Your task to perform on an android device: Go to location settings Image 0: 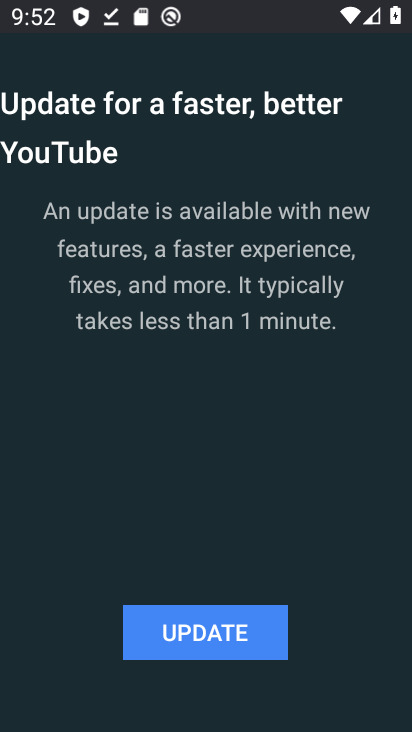
Step 0: press back button
Your task to perform on an android device: Go to location settings Image 1: 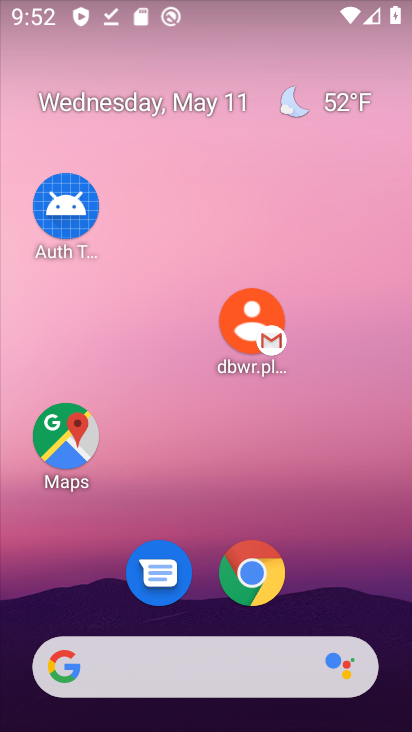
Step 1: drag from (344, 530) to (184, 125)
Your task to perform on an android device: Go to location settings Image 2: 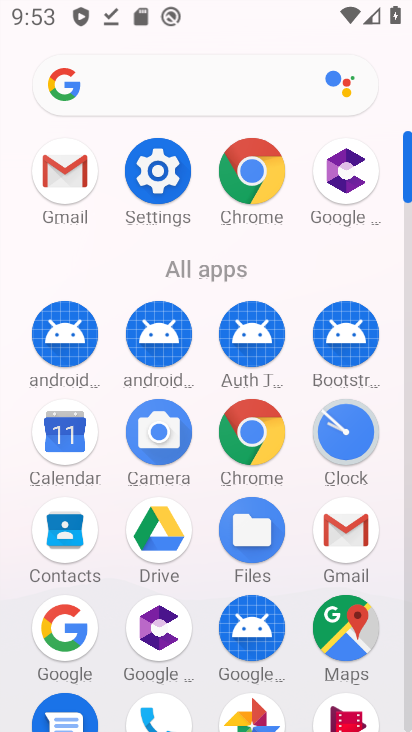
Step 2: click (147, 184)
Your task to perform on an android device: Go to location settings Image 3: 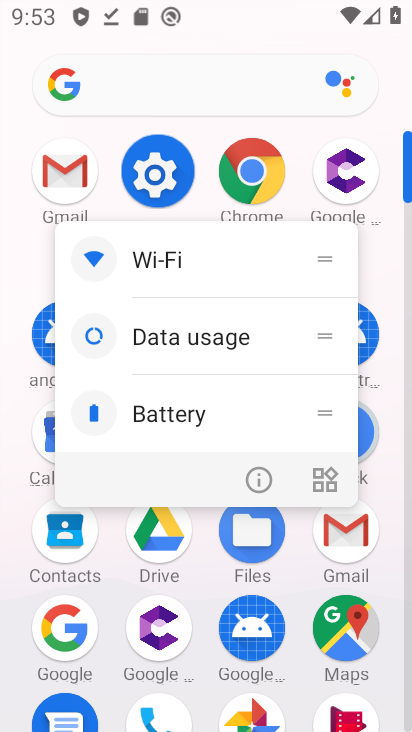
Step 3: click (151, 181)
Your task to perform on an android device: Go to location settings Image 4: 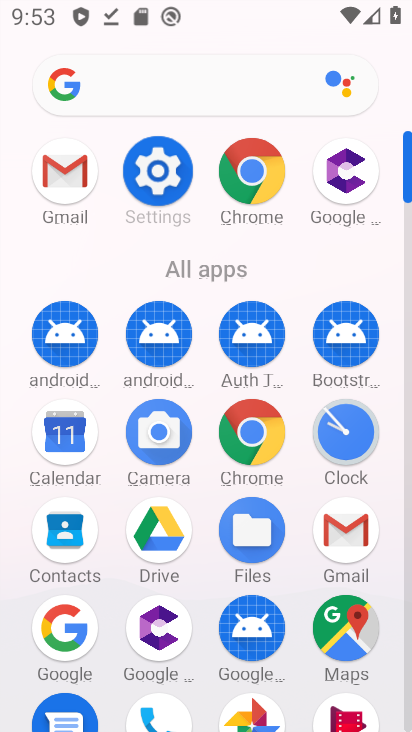
Step 4: click (164, 174)
Your task to perform on an android device: Go to location settings Image 5: 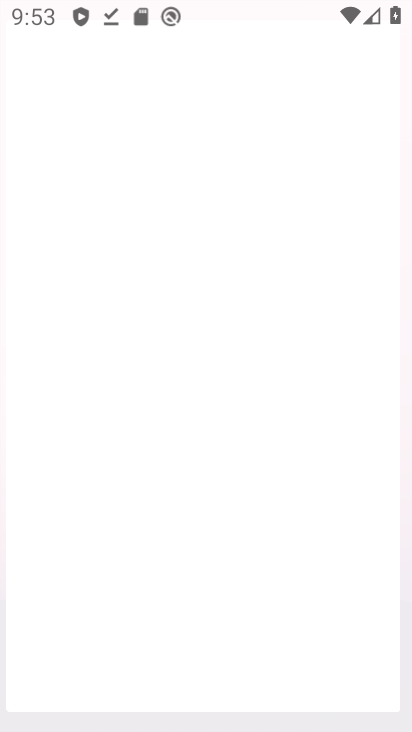
Step 5: click (164, 174)
Your task to perform on an android device: Go to location settings Image 6: 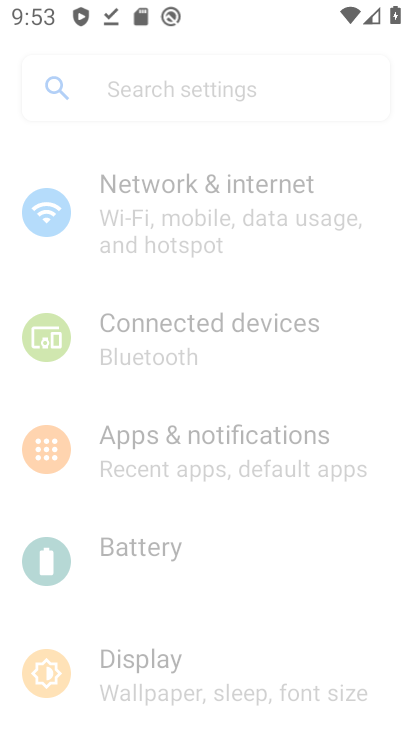
Step 6: click (164, 174)
Your task to perform on an android device: Go to location settings Image 7: 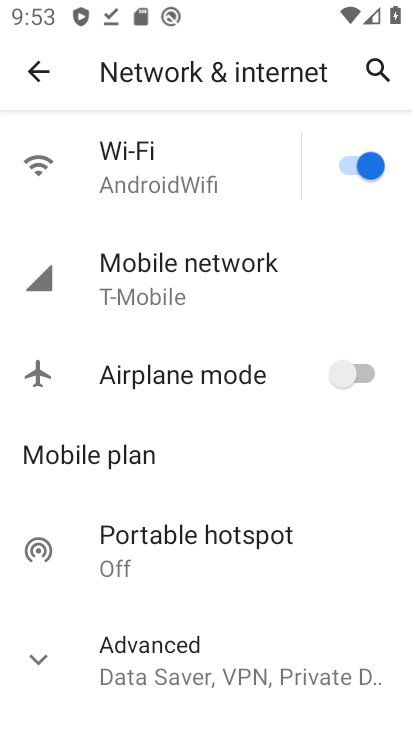
Step 7: click (26, 74)
Your task to perform on an android device: Go to location settings Image 8: 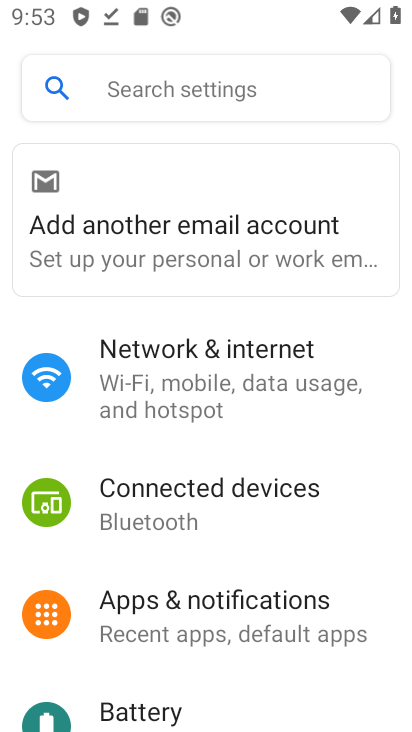
Step 8: drag from (228, 565) to (234, 264)
Your task to perform on an android device: Go to location settings Image 9: 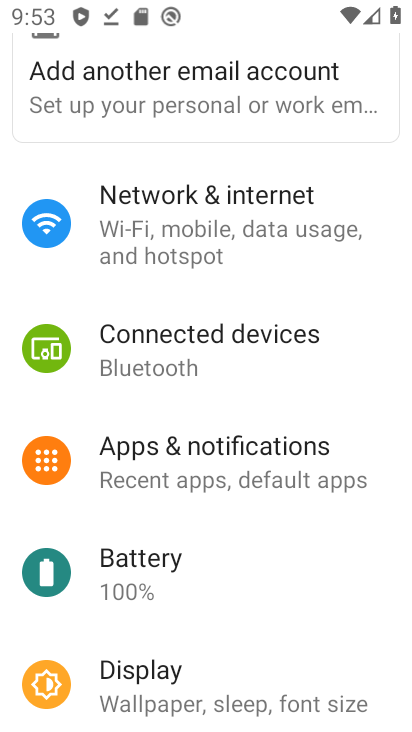
Step 9: drag from (233, 558) to (210, 249)
Your task to perform on an android device: Go to location settings Image 10: 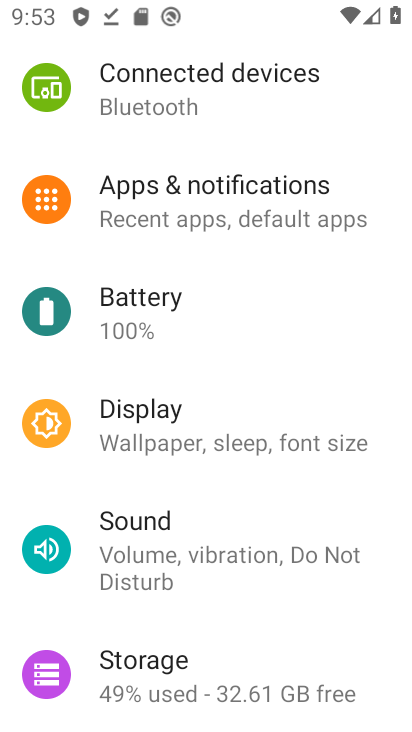
Step 10: drag from (198, 532) to (192, 293)
Your task to perform on an android device: Go to location settings Image 11: 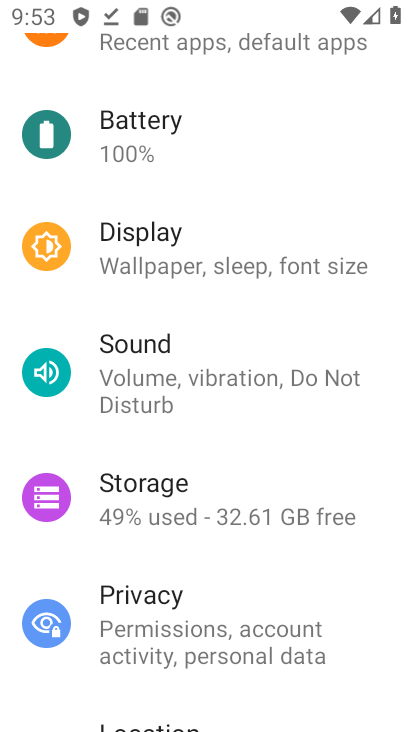
Step 11: drag from (219, 567) to (181, 87)
Your task to perform on an android device: Go to location settings Image 12: 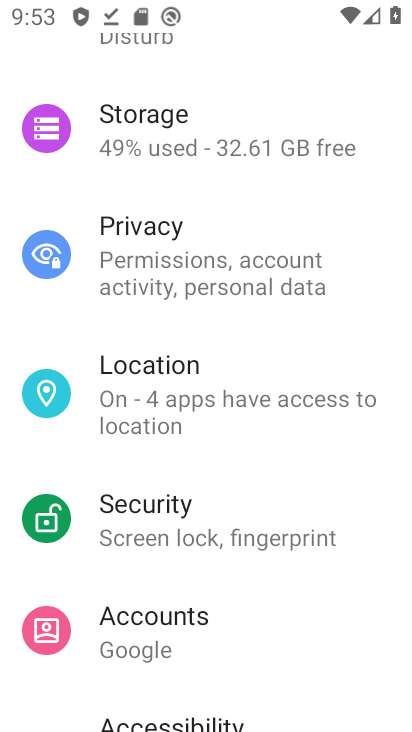
Step 12: drag from (251, 425) to (116, 20)
Your task to perform on an android device: Go to location settings Image 13: 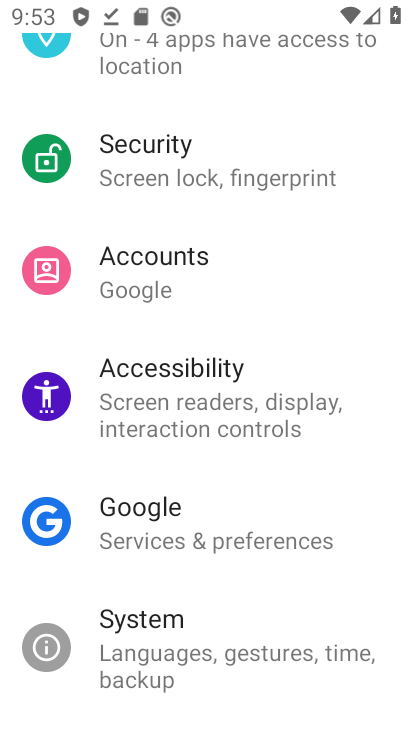
Step 13: click (213, 12)
Your task to perform on an android device: Go to location settings Image 14: 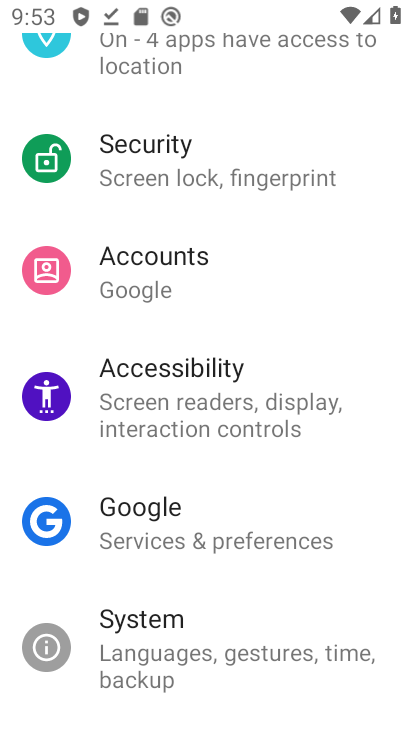
Step 14: click (201, 49)
Your task to perform on an android device: Go to location settings Image 15: 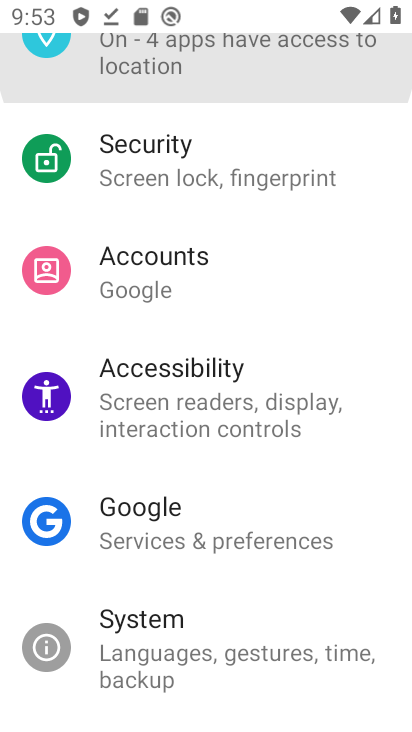
Step 15: drag from (204, 179) to (151, 14)
Your task to perform on an android device: Go to location settings Image 16: 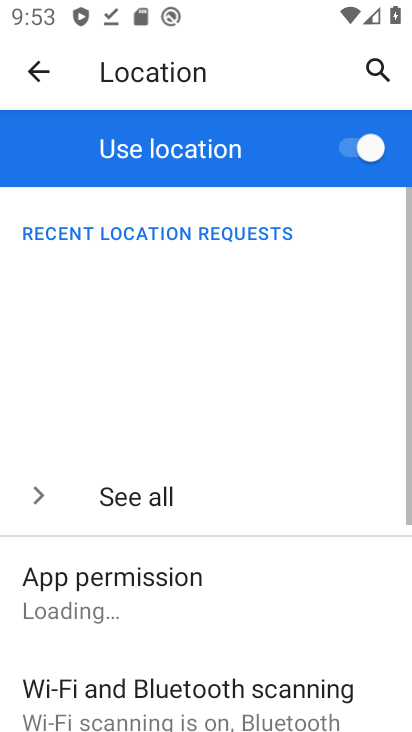
Step 16: drag from (171, 236) to (176, 529)
Your task to perform on an android device: Go to location settings Image 17: 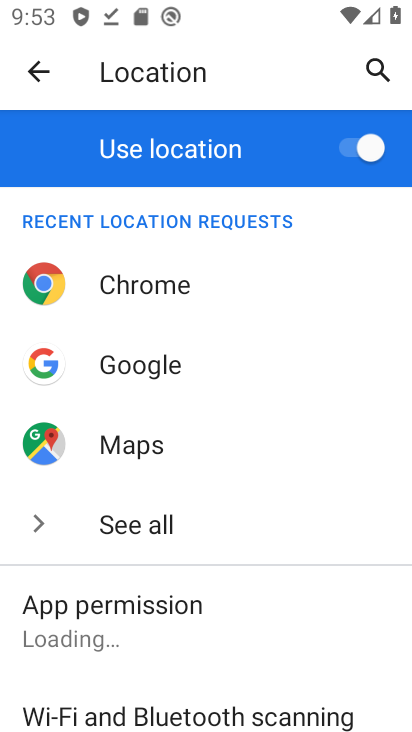
Step 17: click (150, 187)
Your task to perform on an android device: Go to location settings Image 18: 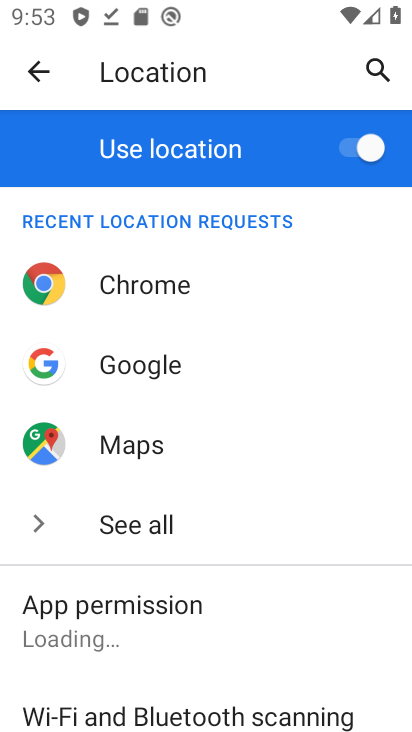
Step 18: click (22, 72)
Your task to perform on an android device: Go to location settings Image 19: 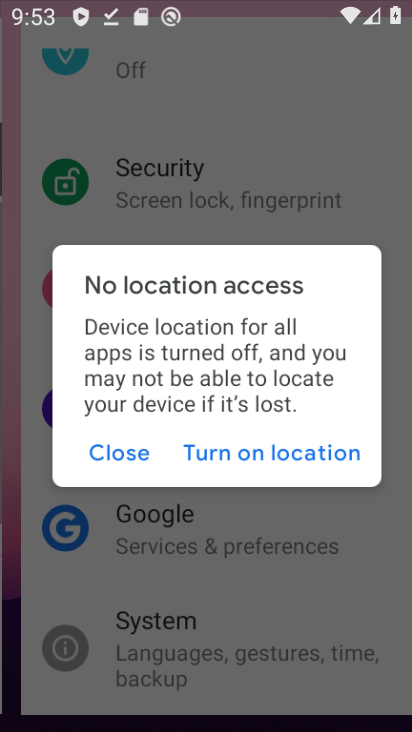
Step 19: task complete